Your task to perform on an android device: open sync settings in chrome Image 0: 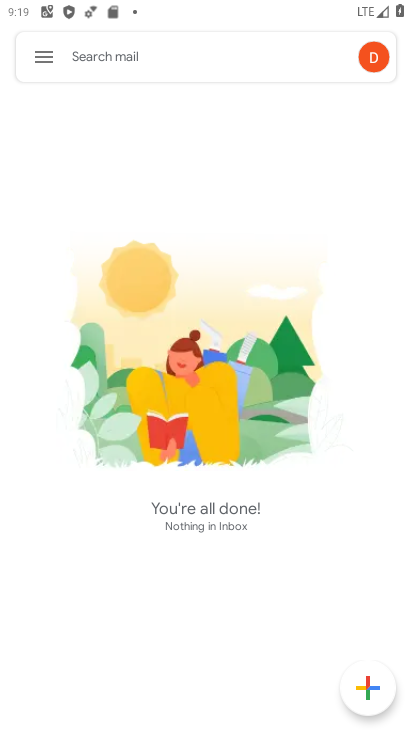
Step 0: press home button
Your task to perform on an android device: open sync settings in chrome Image 1: 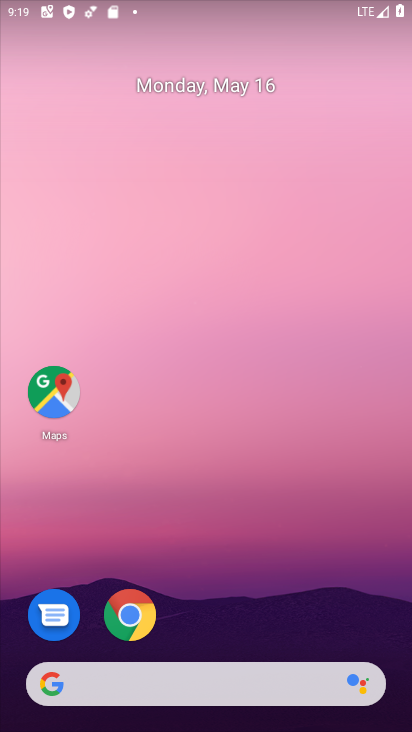
Step 1: drag from (210, 654) to (211, 232)
Your task to perform on an android device: open sync settings in chrome Image 2: 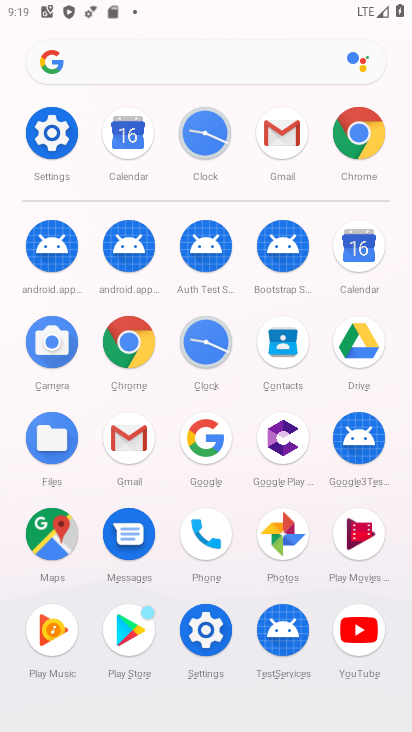
Step 2: click (353, 173)
Your task to perform on an android device: open sync settings in chrome Image 3: 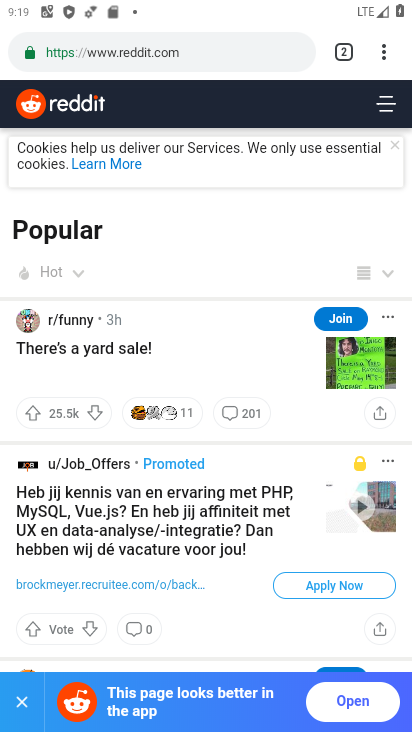
Step 3: click (382, 52)
Your task to perform on an android device: open sync settings in chrome Image 4: 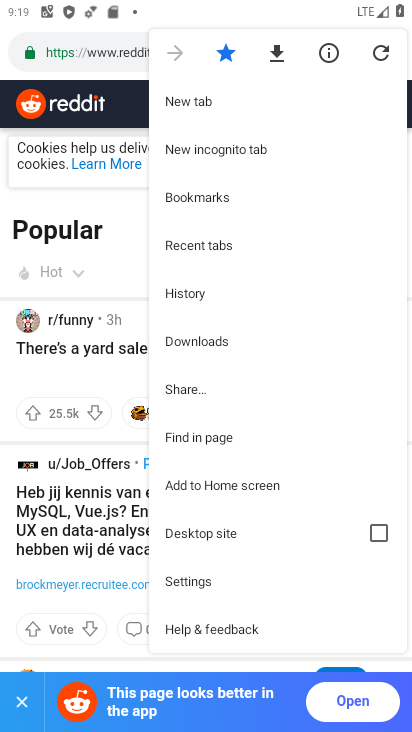
Step 4: click (195, 587)
Your task to perform on an android device: open sync settings in chrome Image 5: 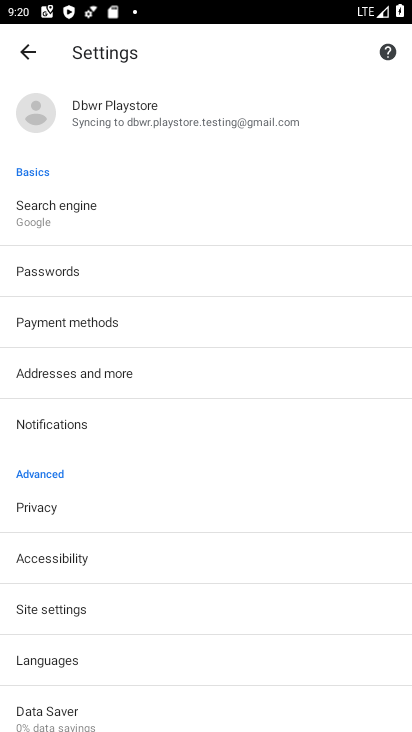
Step 5: click (156, 108)
Your task to perform on an android device: open sync settings in chrome Image 6: 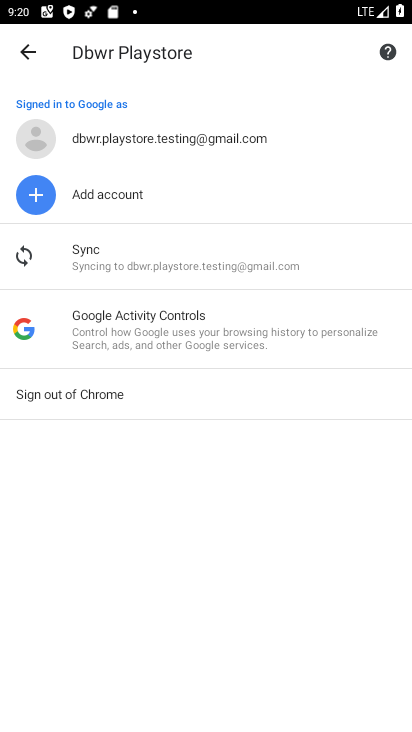
Step 6: click (151, 278)
Your task to perform on an android device: open sync settings in chrome Image 7: 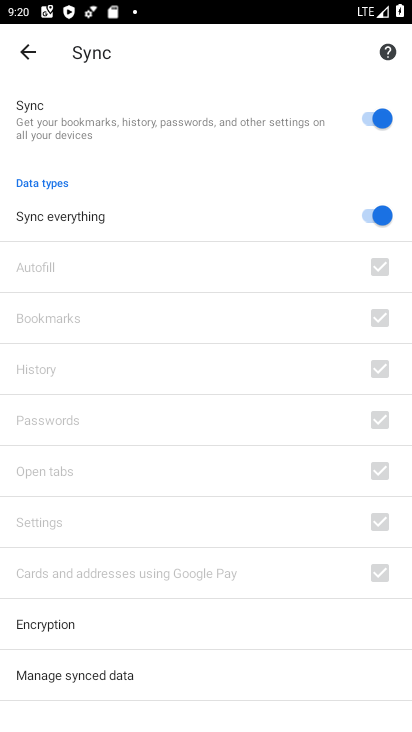
Step 7: task complete